Your task to perform on an android device: check battery use Image 0: 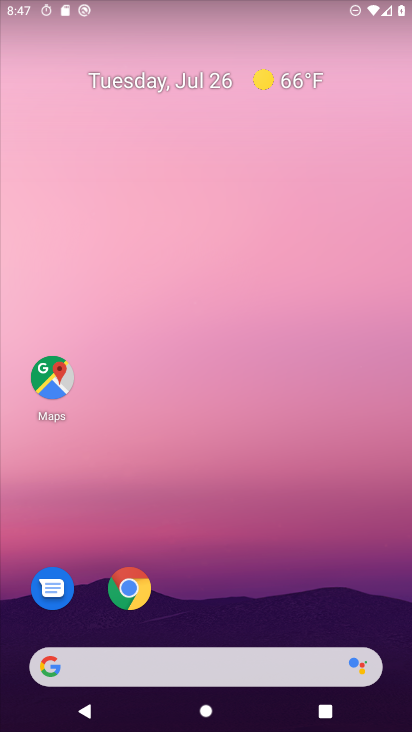
Step 0: drag from (229, 723) to (229, 126)
Your task to perform on an android device: check battery use Image 1: 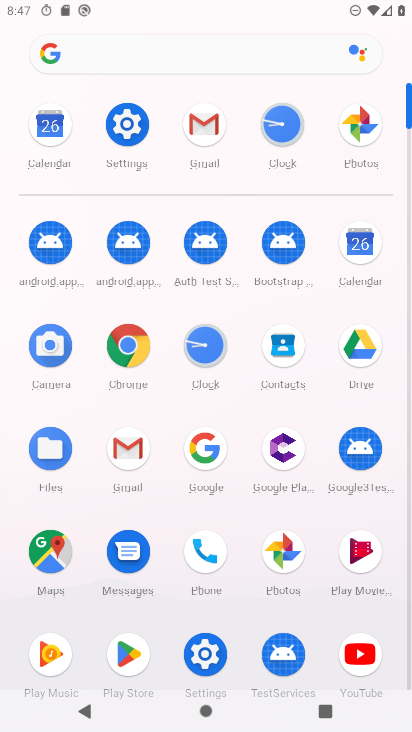
Step 1: click (130, 120)
Your task to perform on an android device: check battery use Image 2: 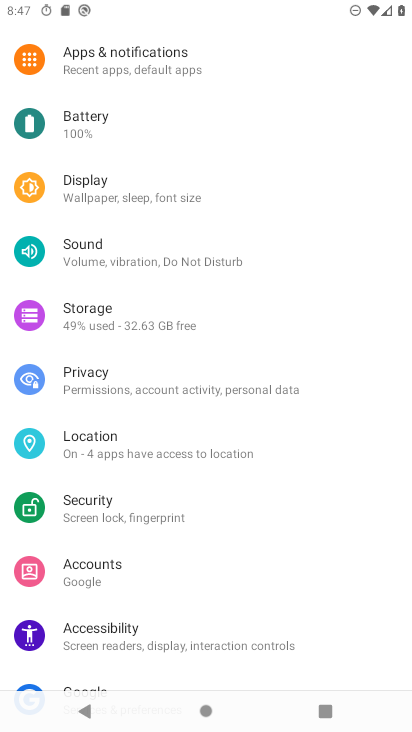
Step 2: click (74, 121)
Your task to perform on an android device: check battery use Image 3: 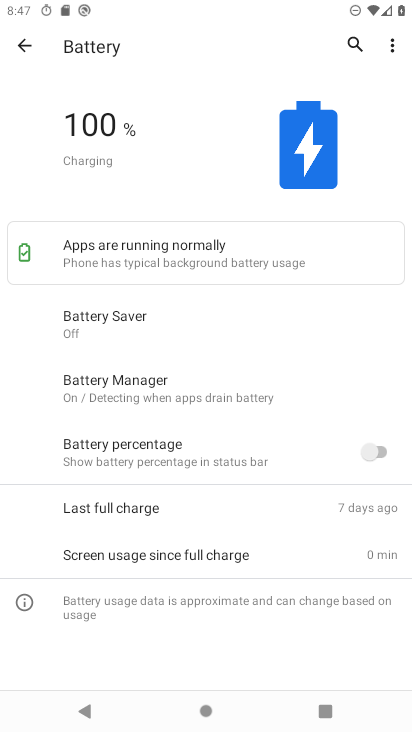
Step 3: click (392, 44)
Your task to perform on an android device: check battery use Image 4: 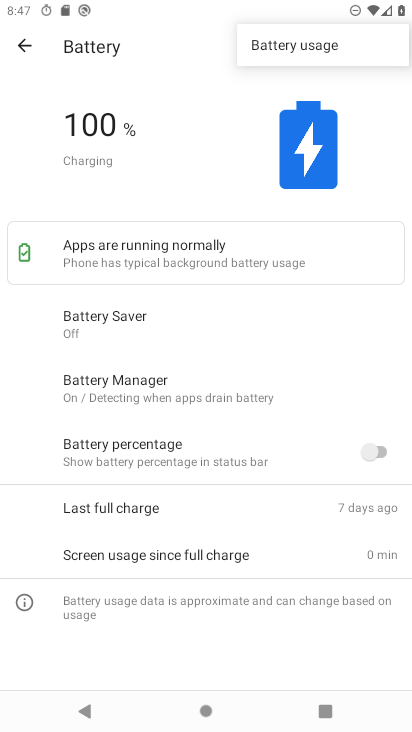
Step 4: click (326, 40)
Your task to perform on an android device: check battery use Image 5: 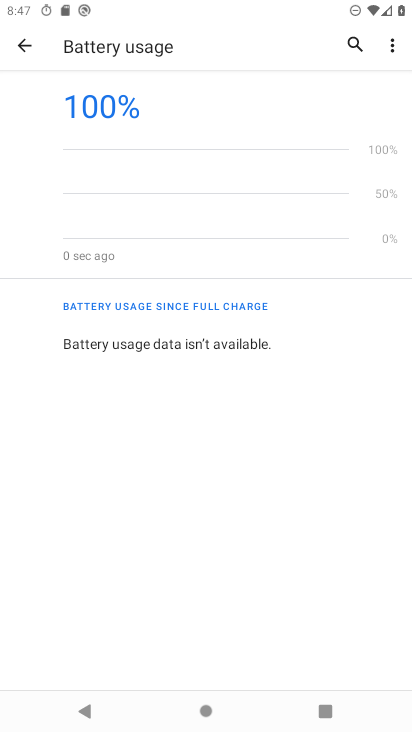
Step 5: task complete